Your task to perform on an android device: turn on location history Image 0: 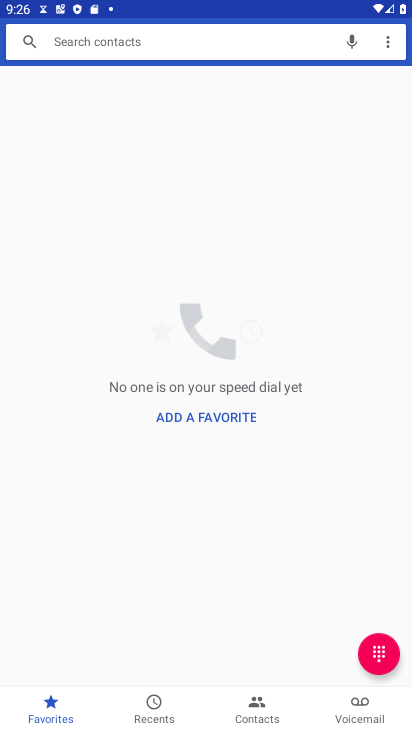
Step 0: press home button
Your task to perform on an android device: turn on location history Image 1: 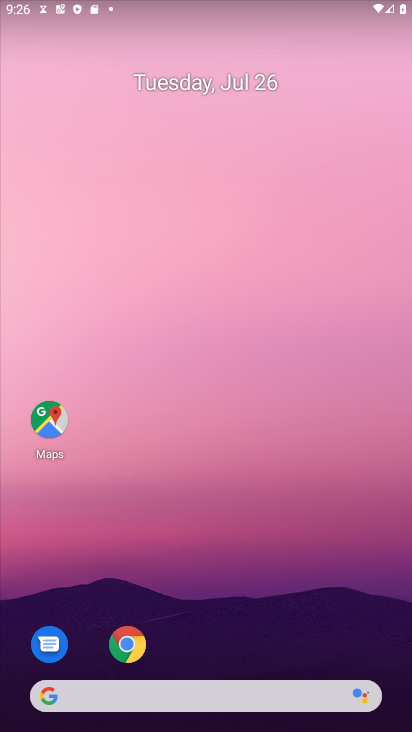
Step 1: drag from (251, 510) to (278, 46)
Your task to perform on an android device: turn on location history Image 2: 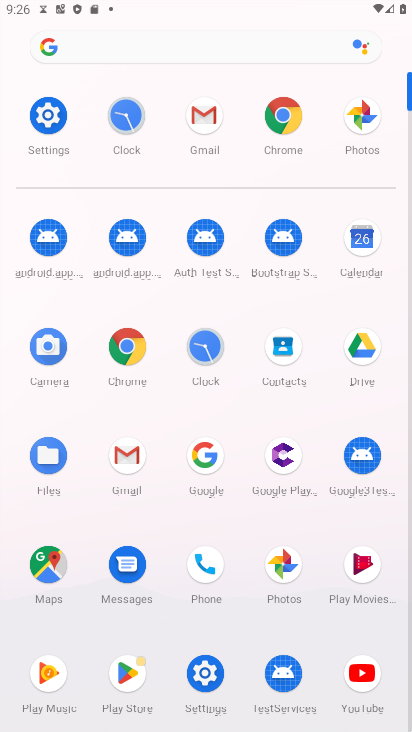
Step 2: click (197, 685)
Your task to perform on an android device: turn on location history Image 3: 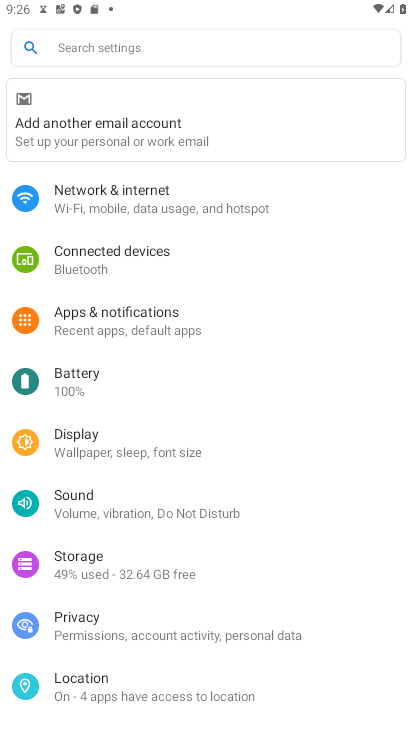
Step 3: click (82, 697)
Your task to perform on an android device: turn on location history Image 4: 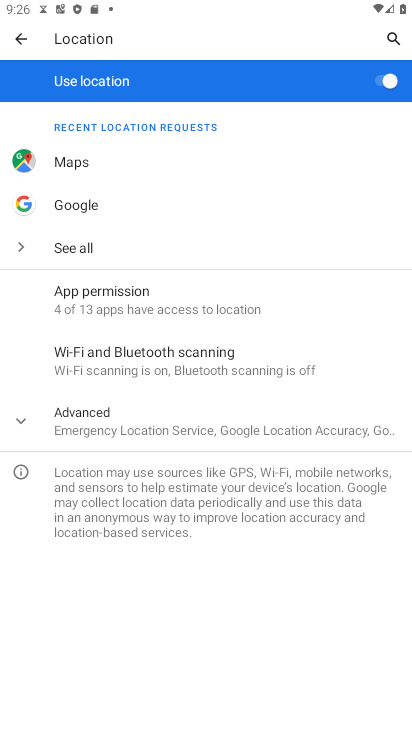
Step 4: click (102, 427)
Your task to perform on an android device: turn on location history Image 5: 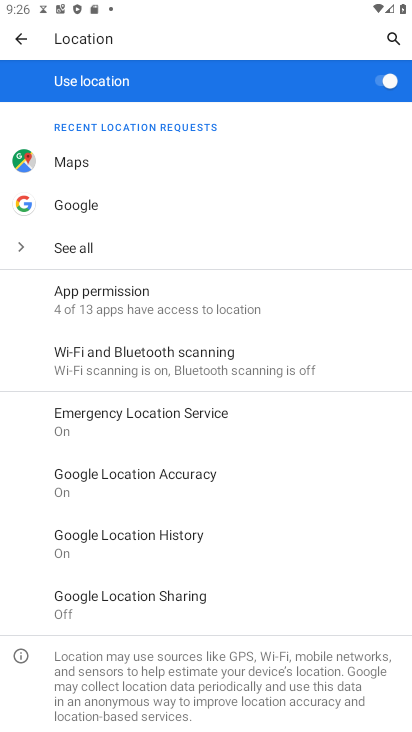
Step 5: click (154, 543)
Your task to perform on an android device: turn on location history Image 6: 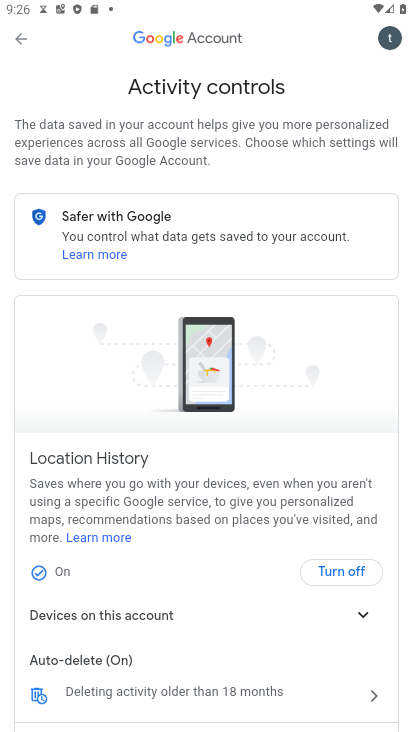
Step 6: task complete